Your task to perform on an android device: Go to Android settings Image 0: 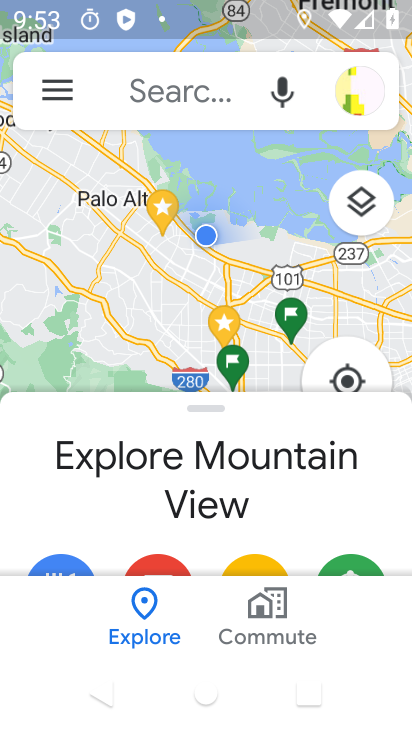
Step 0: press home button
Your task to perform on an android device: Go to Android settings Image 1: 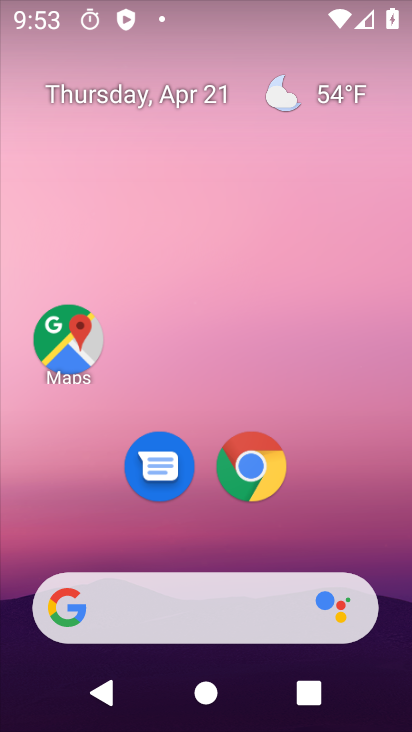
Step 1: drag from (378, 519) to (411, 140)
Your task to perform on an android device: Go to Android settings Image 2: 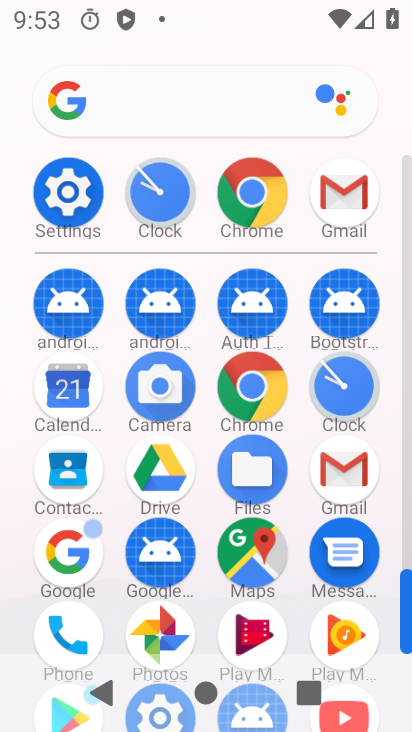
Step 2: click (73, 200)
Your task to perform on an android device: Go to Android settings Image 3: 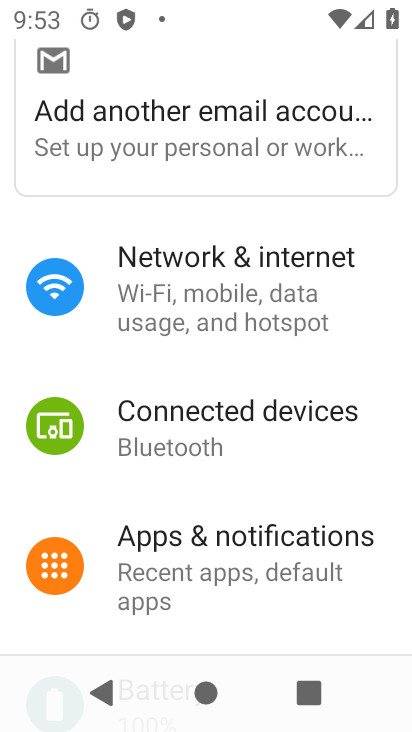
Step 3: task complete